Your task to perform on an android device: turn on translation in the chrome app Image 0: 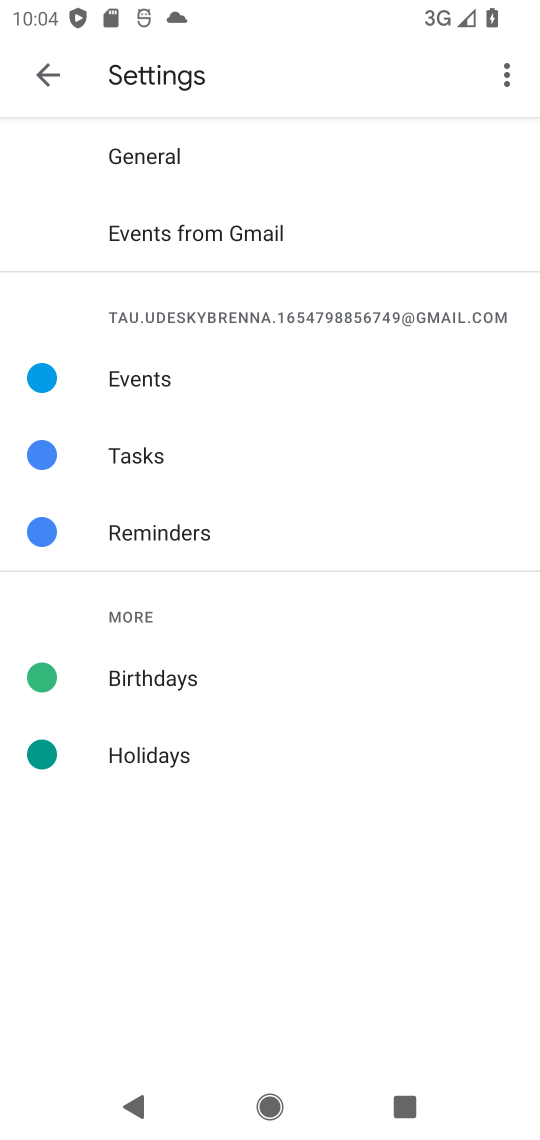
Step 0: press home button
Your task to perform on an android device: turn on translation in the chrome app Image 1: 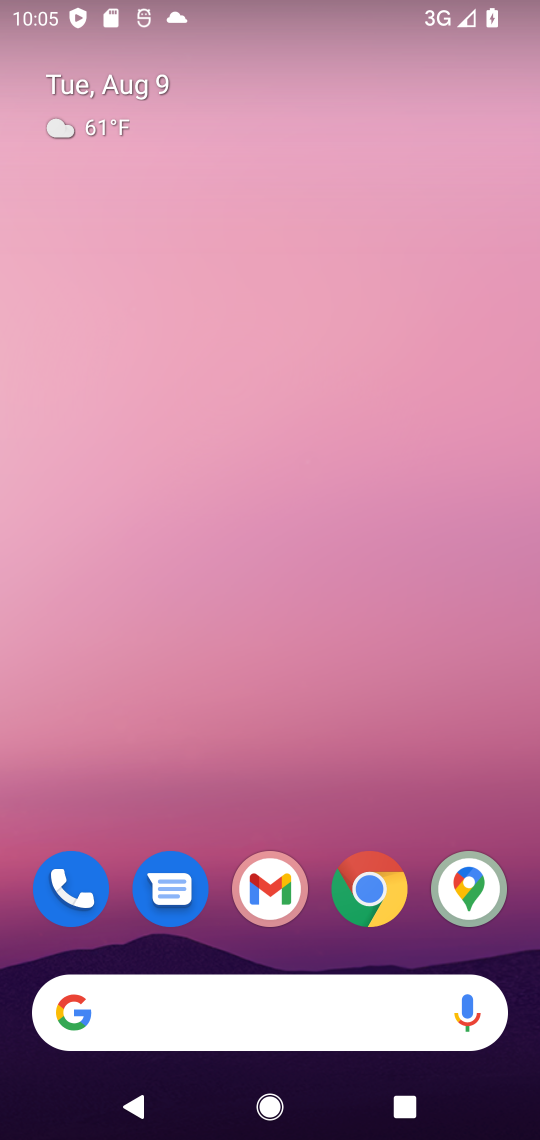
Step 1: drag from (293, 824) to (455, 21)
Your task to perform on an android device: turn on translation in the chrome app Image 2: 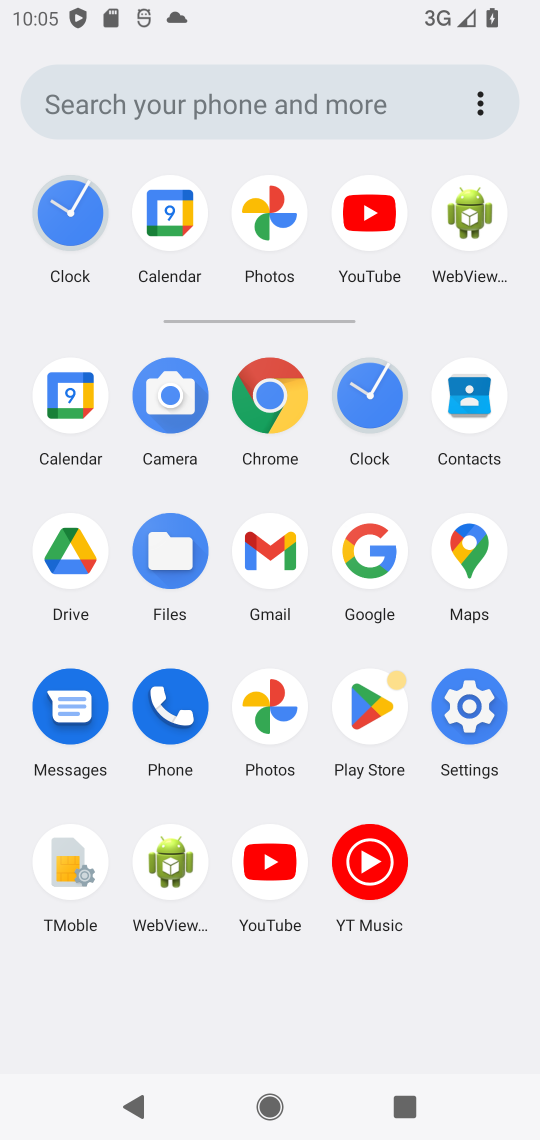
Step 2: click (275, 394)
Your task to perform on an android device: turn on translation in the chrome app Image 3: 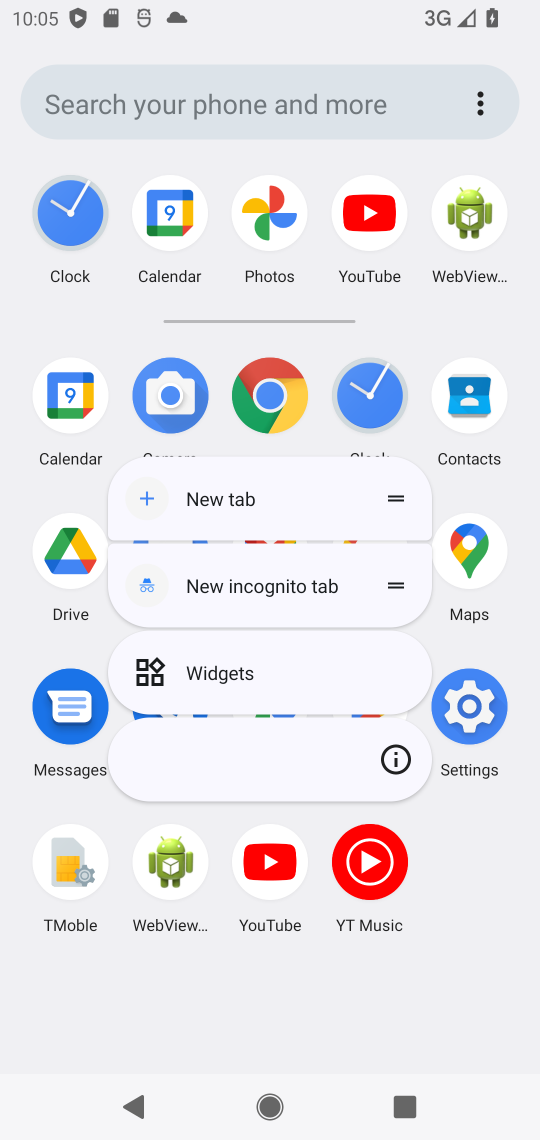
Step 3: click (275, 393)
Your task to perform on an android device: turn on translation in the chrome app Image 4: 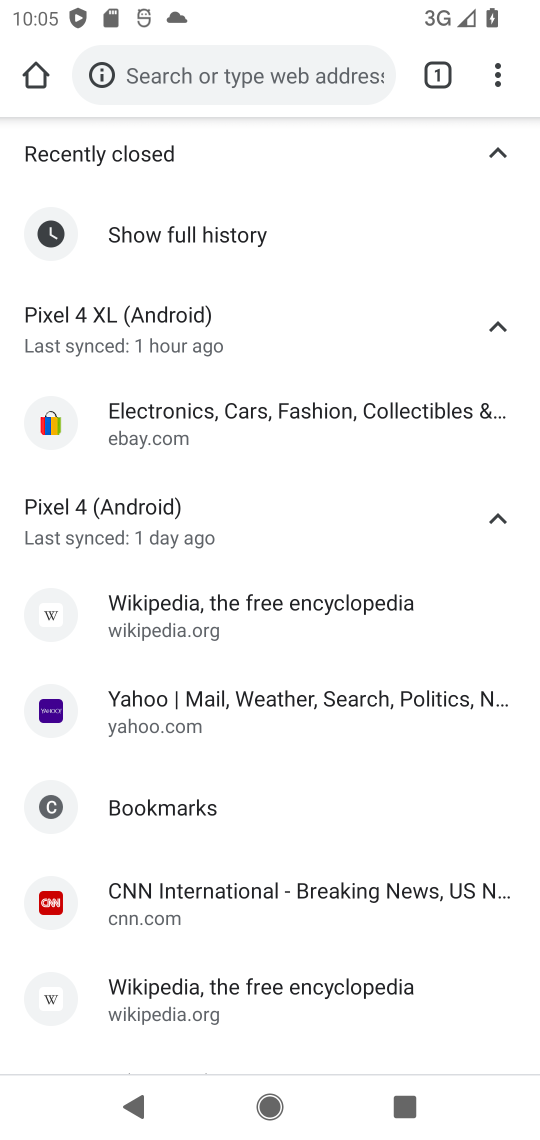
Step 4: drag from (489, 87) to (192, 806)
Your task to perform on an android device: turn on translation in the chrome app Image 5: 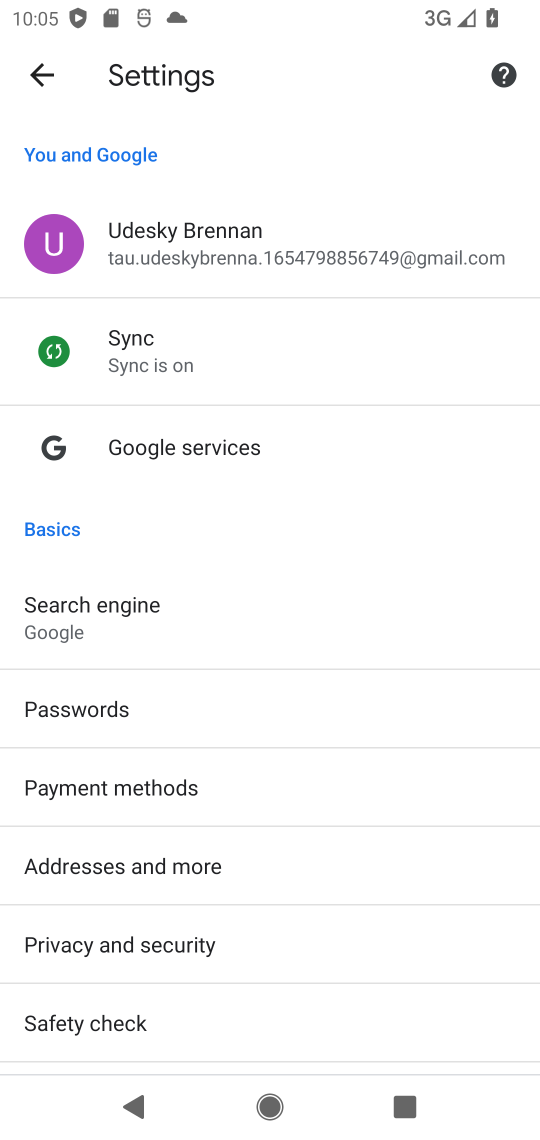
Step 5: drag from (167, 893) to (339, 201)
Your task to perform on an android device: turn on translation in the chrome app Image 6: 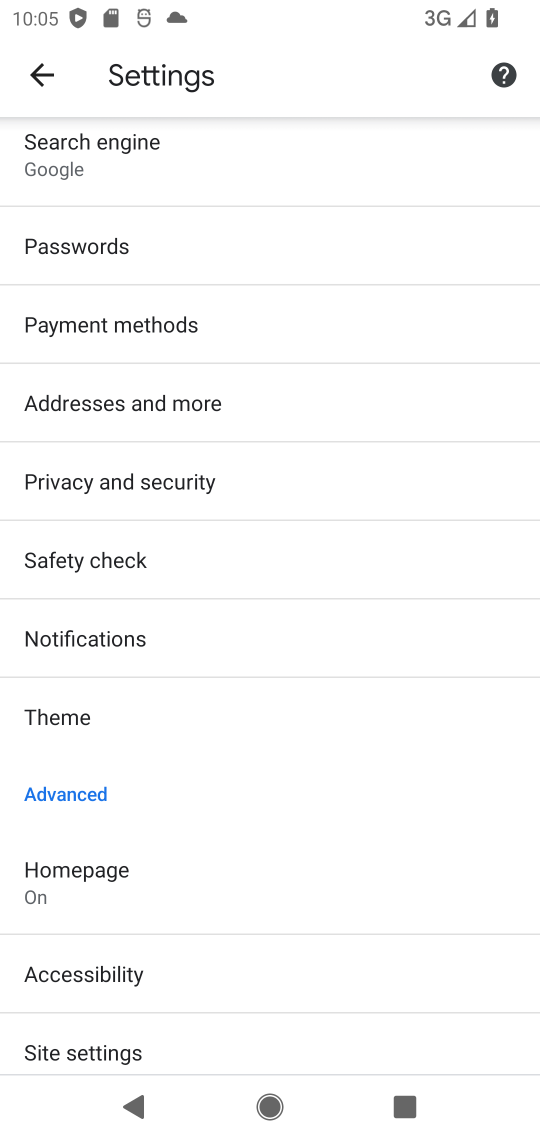
Step 6: drag from (226, 1012) to (405, 227)
Your task to perform on an android device: turn on translation in the chrome app Image 7: 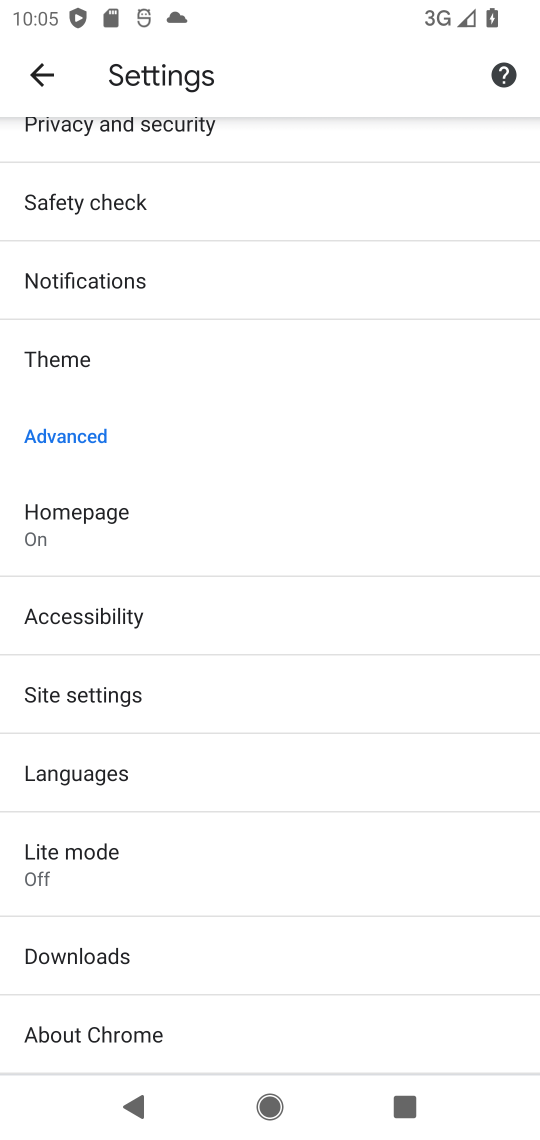
Step 7: click (141, 789)
Your task to perform on an android device: turn on translation in the chrome app Image 8: 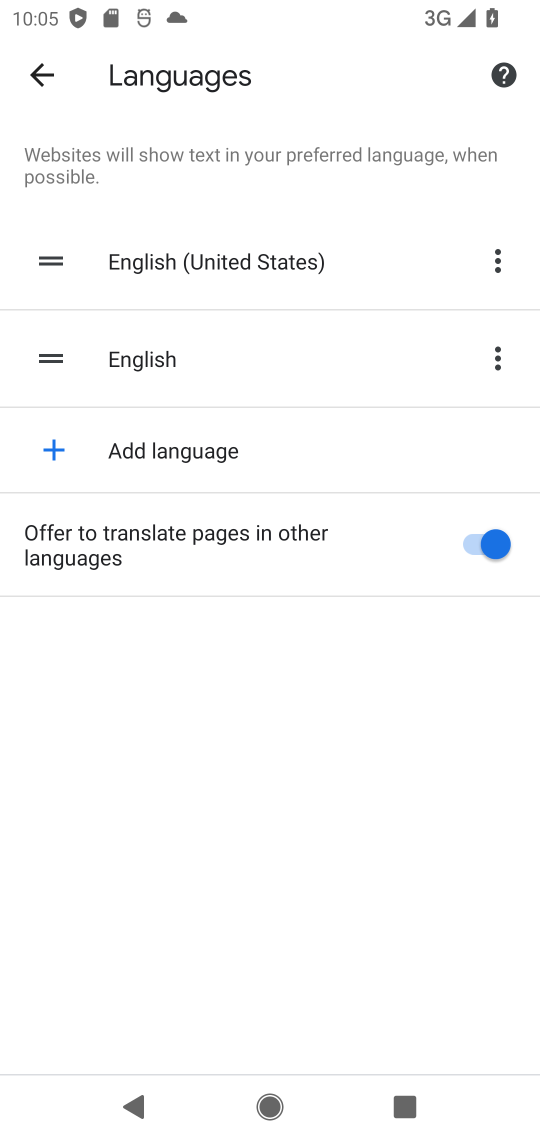
Step 8: task complete